Your task to perform on an android device: set an alarm Image 0: 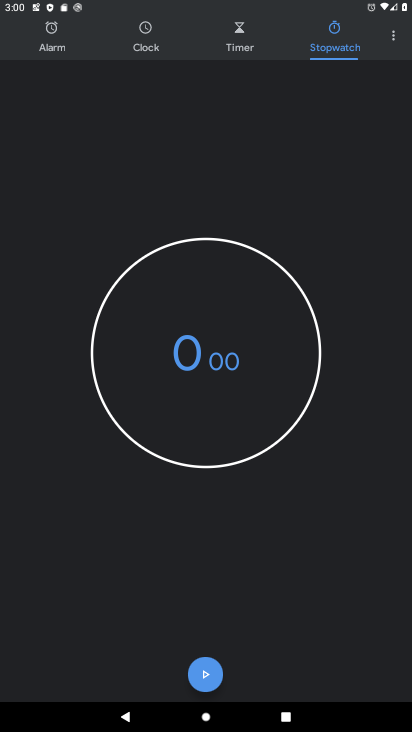
Step 0: click (51, 34)
Your task to perform on an android device: set an alarm Image 1: 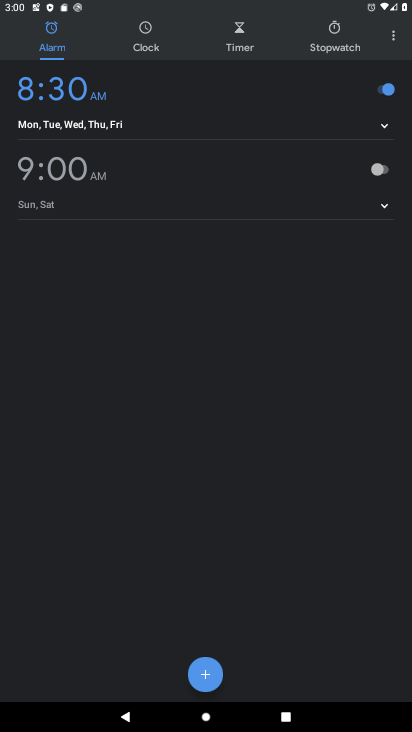
Step 1: click (378, 172)
Your task to perform on an android device: set an alarm Image 2: 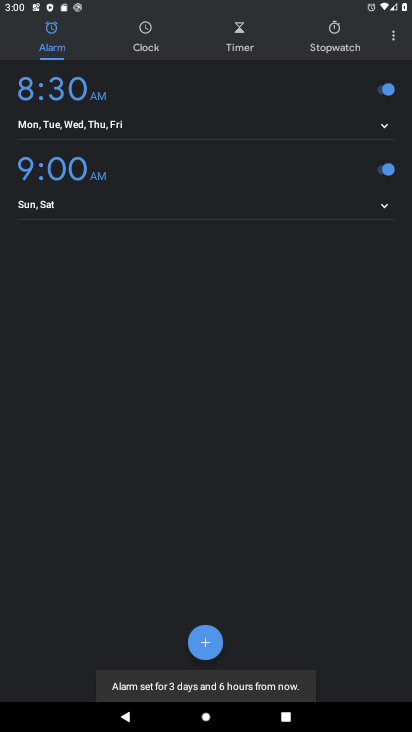
Step 2: task complete